Your task to perform on an android device: set the stopwatch Image 0: 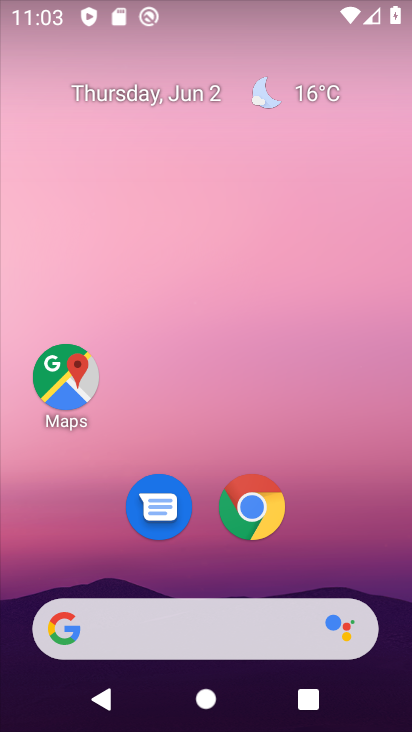
Step 0: drag from (398, 641) to (316, 88)
Your task to perform on an android device: set the stopwatch Image 1: 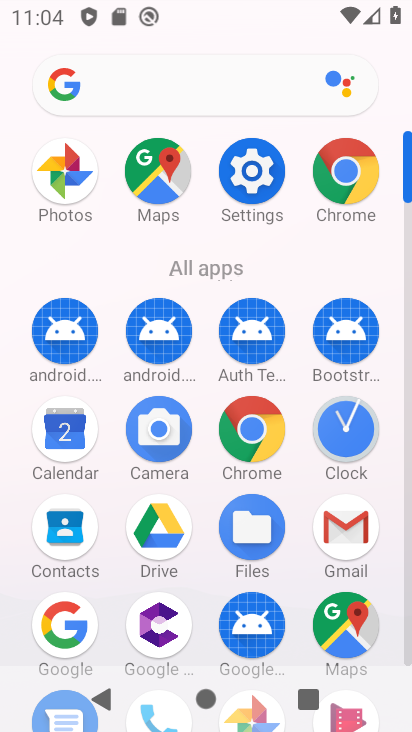
Step 1: click (348, 427)
Your task to perform on an android device: set the stopwatch Image 2: 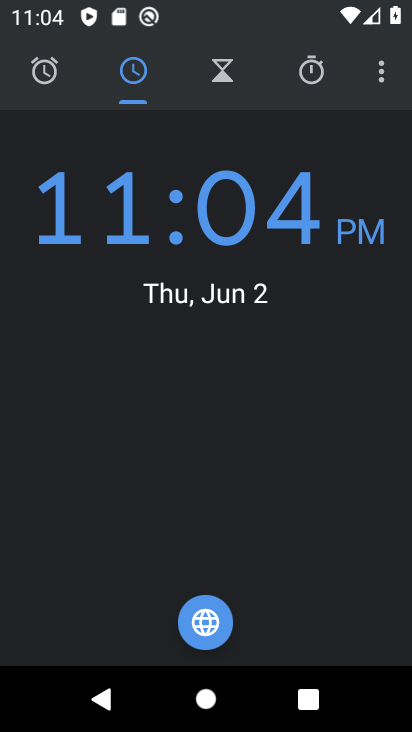
Step 2: click (303, 72)
Your task to perform on an android device: set the stopwatch Image 3: 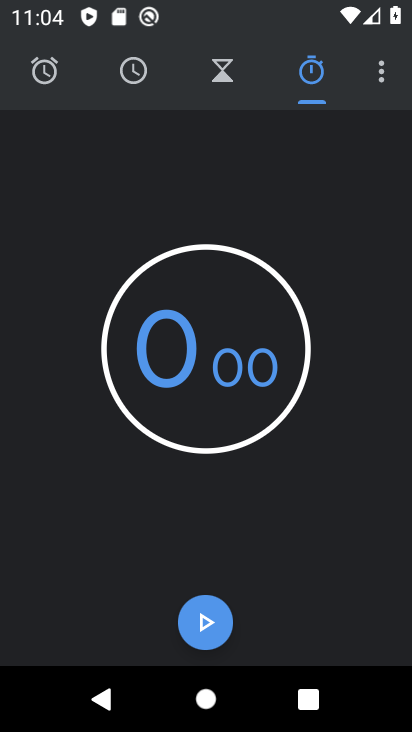
Step 3: click (202, 617)
Your task to perform on an android device: set the stopwatch Image 4: 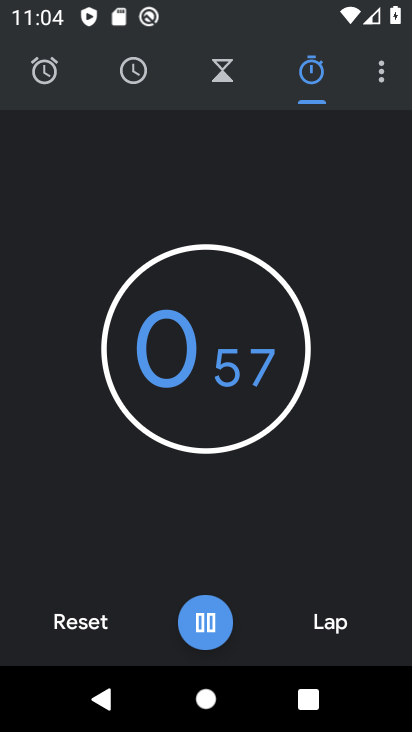
Step 4: click (202, 617)
Your task to perform on an android device: set the stopwatch Image 5: 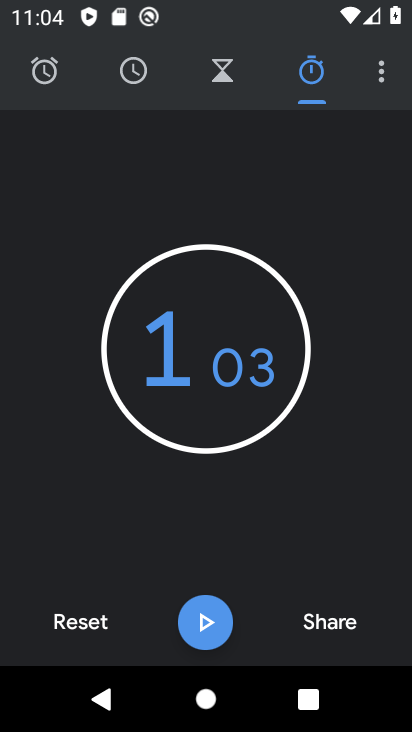
Step 5: task complete